Your task to perform on an android device: Search for "beats solo 3" on costco, select the first entry, add it to the cart, then select checkout. Image 0: 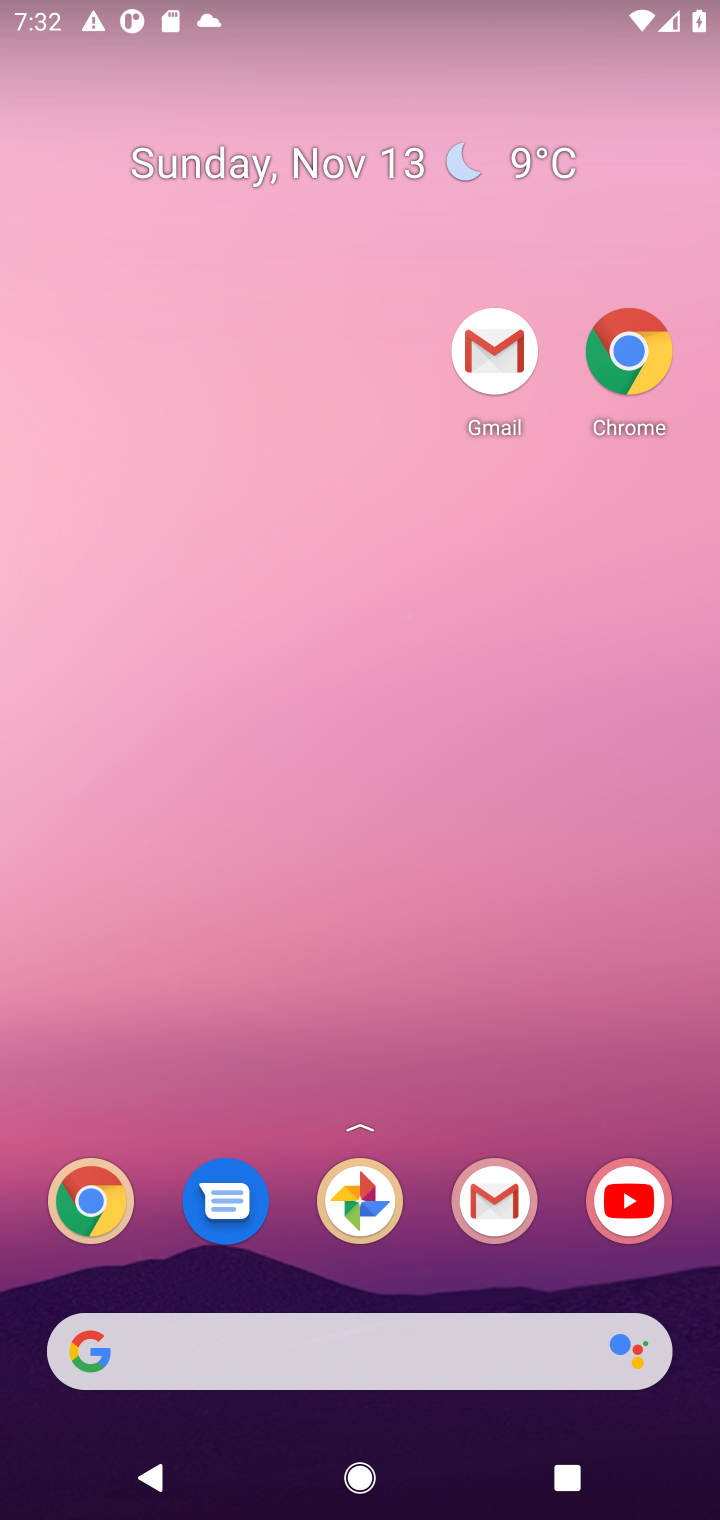
Step 0: drag from (419, 1291) to (318, 104)
Your task to perform on an android device: Search for "beats solo 3" on costco, select the first entry, add it to the cart, then select checkout. Image 1: 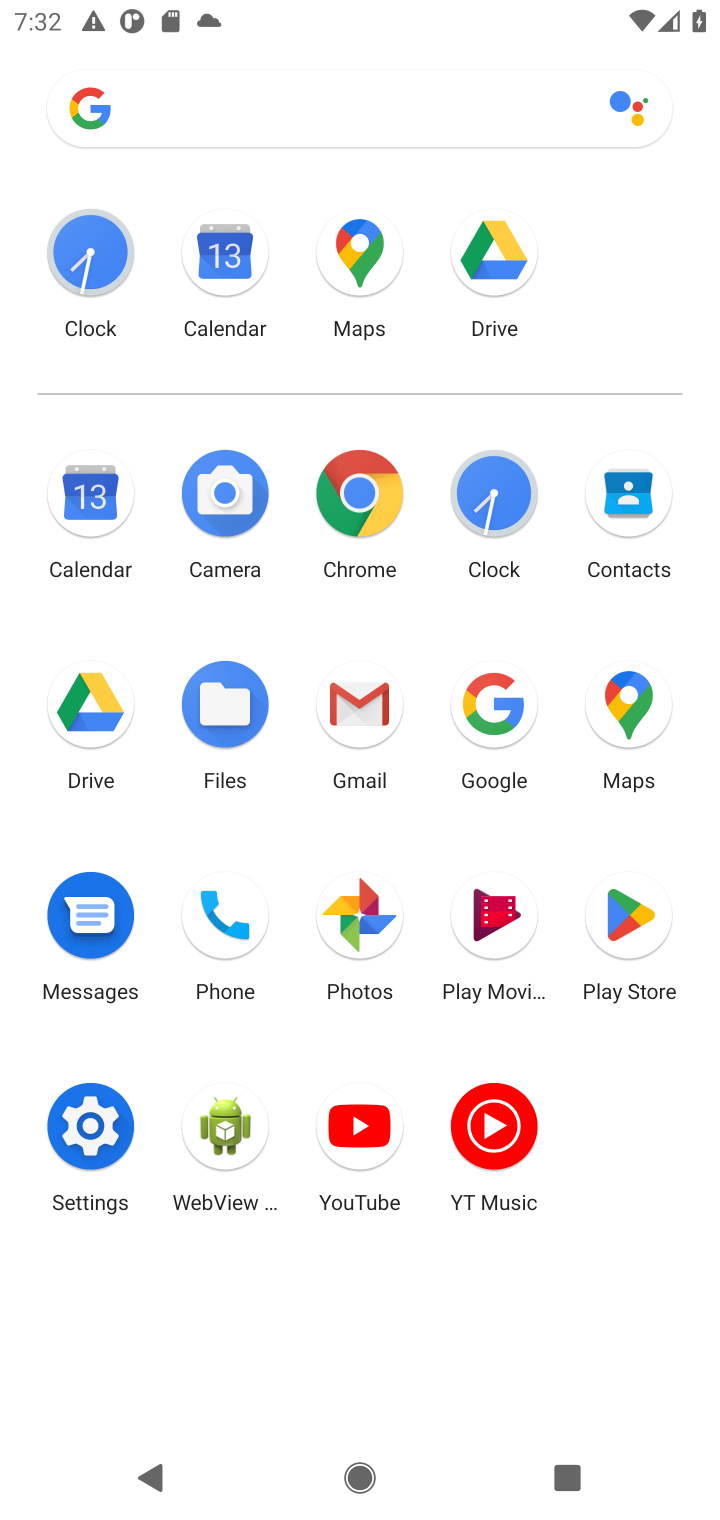
Step 1: click (349, 489)
Your task to perform on an android device: Search for "beats solo 3" on costco, select the first entry, add it to the cart, then select checkout. Image 2: 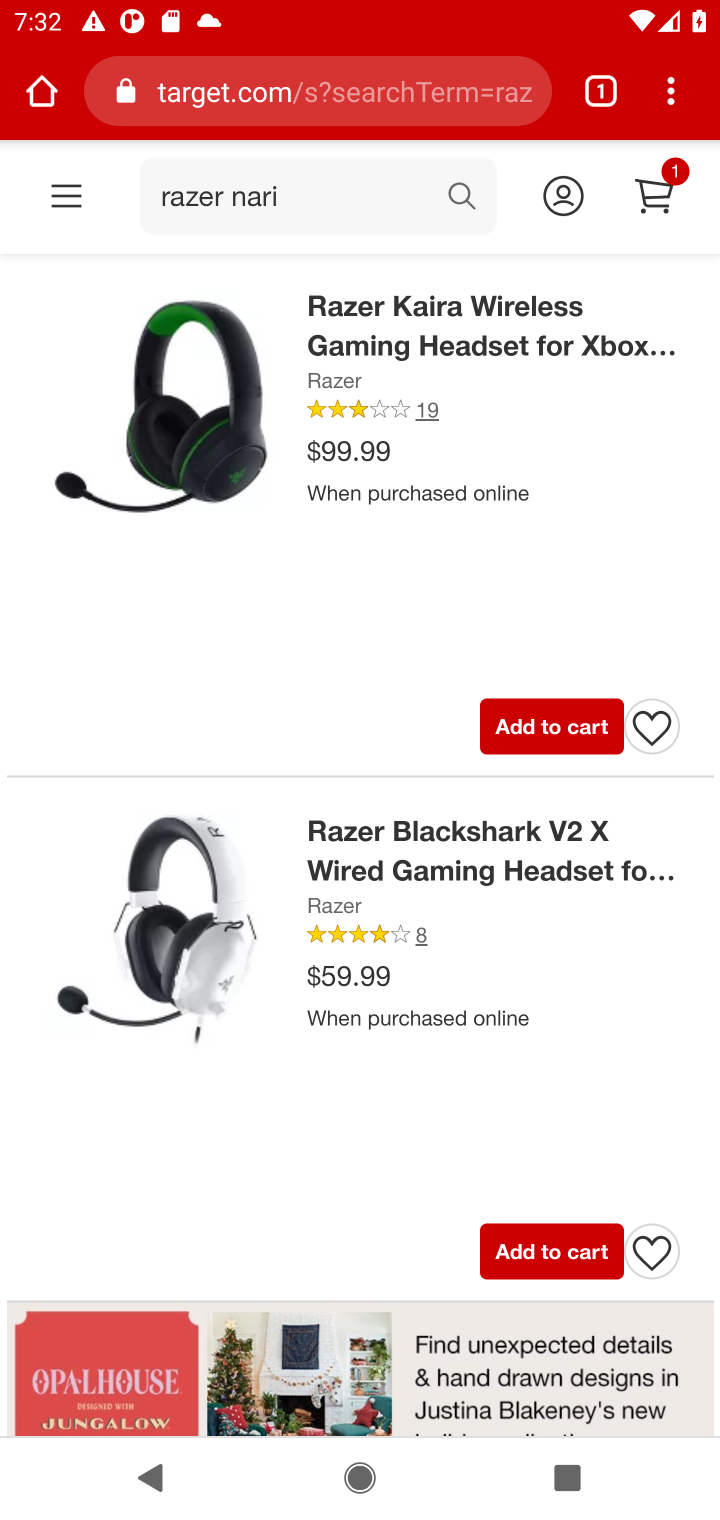
Step 2: click (391, 95)
Your task to perform on an android device: Search for "beats solo 3" on costco, select the first entry, add it to the cart, then select checkout. Image 3: 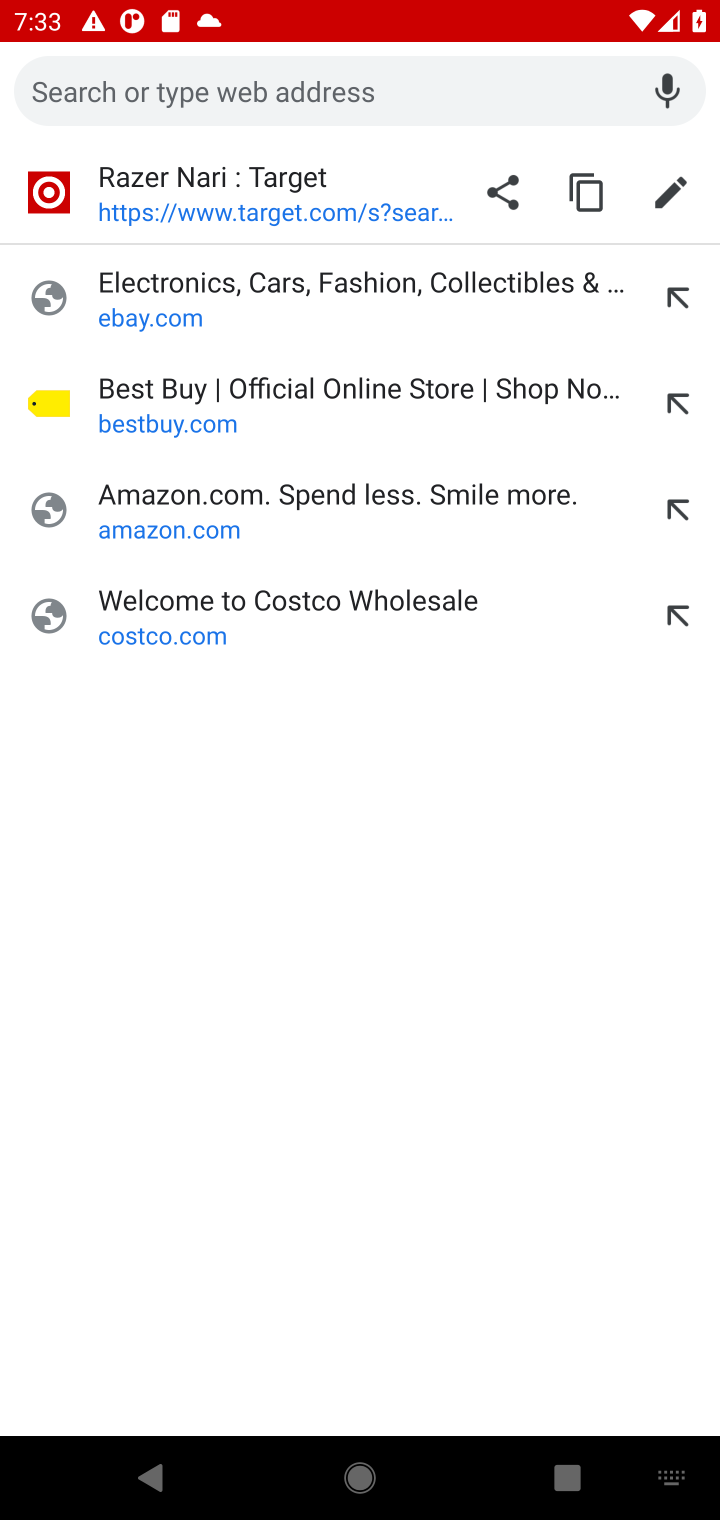
Step 3: type "costco.om"
Your task to perform on an android device: Search for "beats solo 3" on costco, select the first entry, add it to the cart, then select checkout. Image 4: 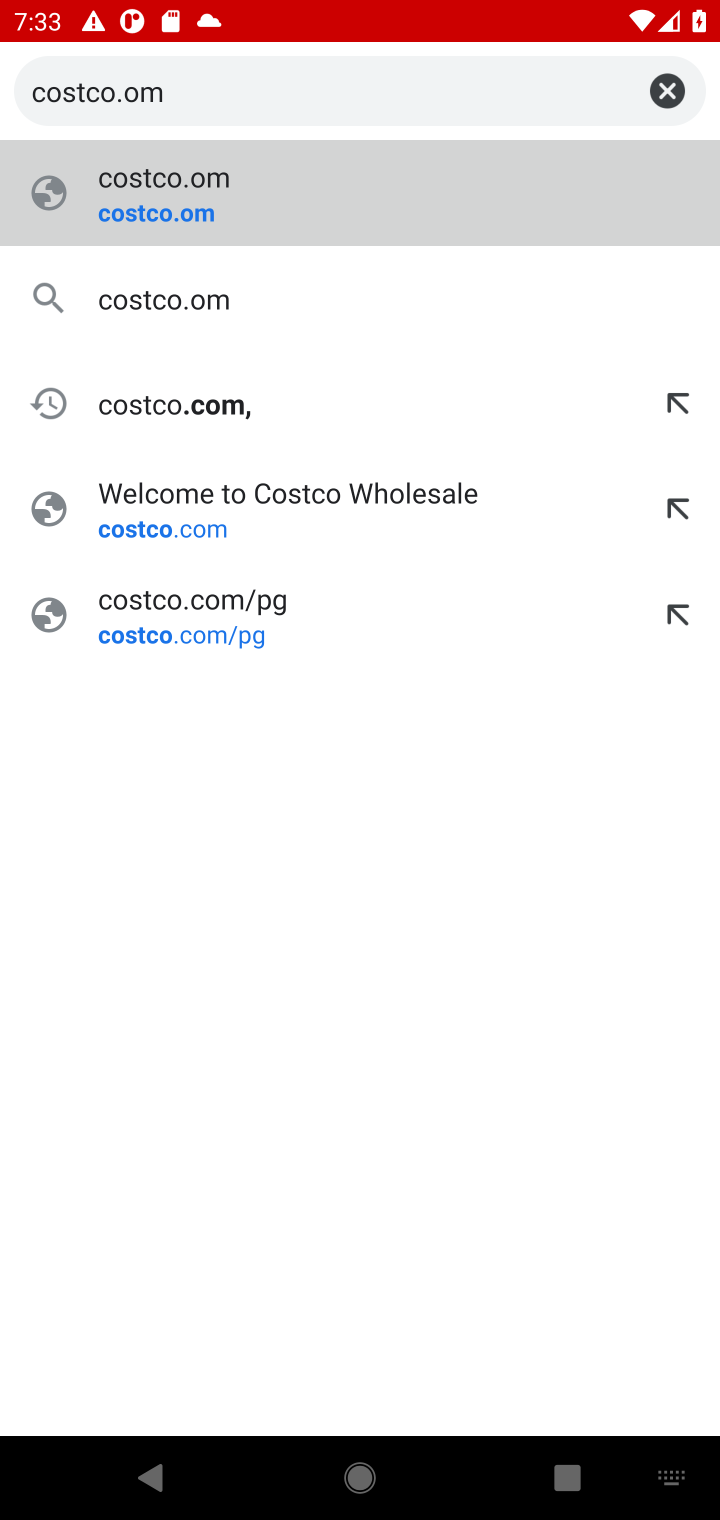
Step 4: click (141, 535)
Your task to perform on an android device: Search for "beats solo 3" on costco, select the first entry, add it to the cart, then select checkout. Image 5: 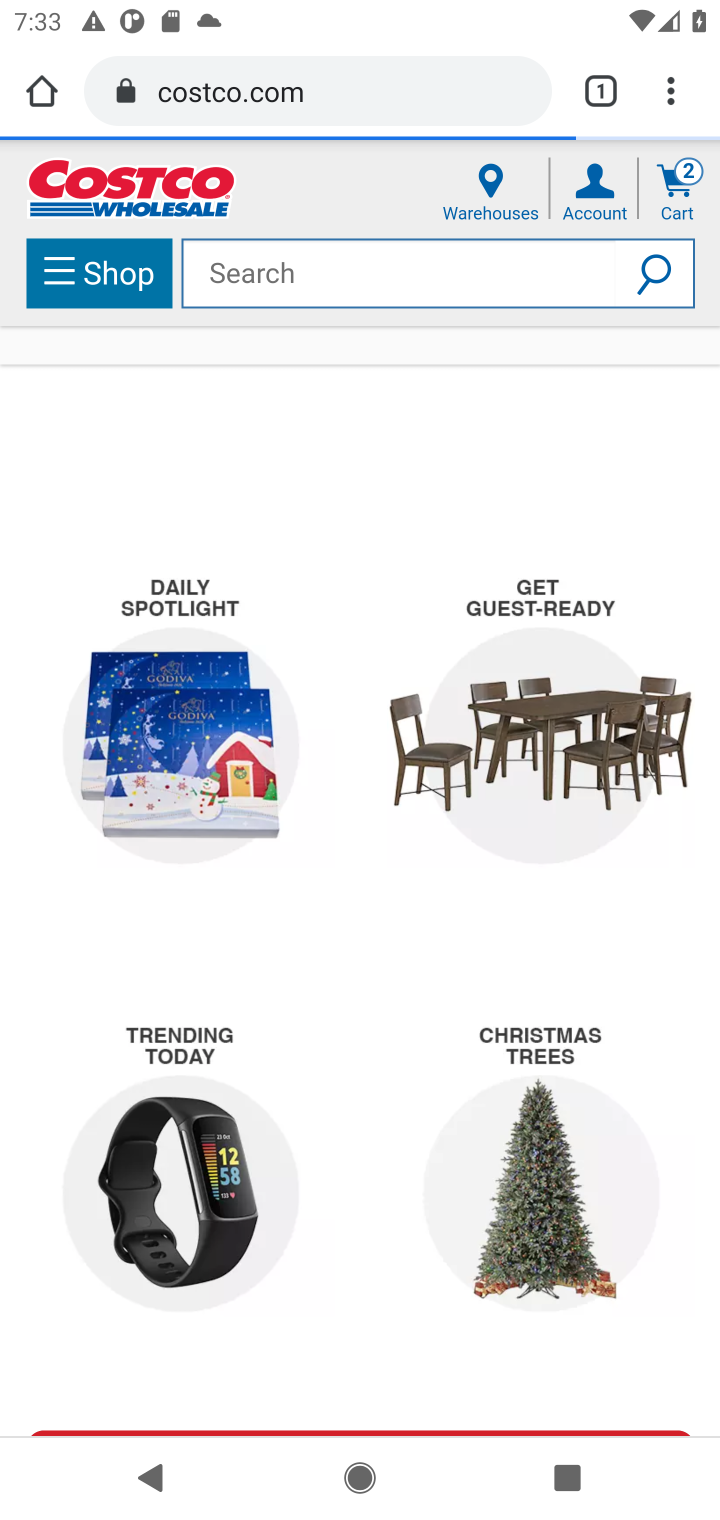
Step 5: click (400, 273)
Your task to perform on an android device: Search for "beats solo 3" on costco, select the first entry, add it to the cart, then select checkout. Image 6: 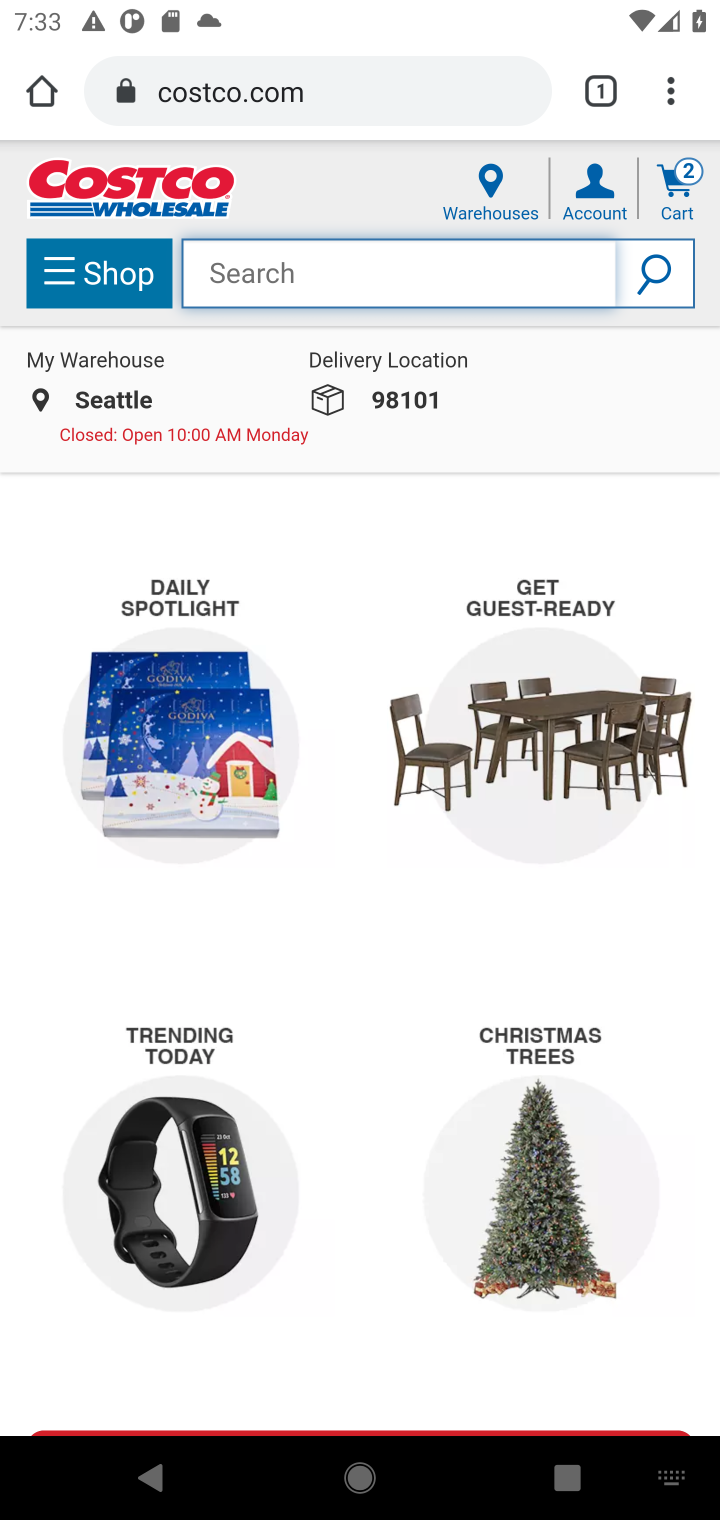
Step 6: type "beats solo 3"
Your task to perform on an android device: Search for "beats solo 3" on costco, select the first entry, add it to the cart, then select checkout. Image 7: 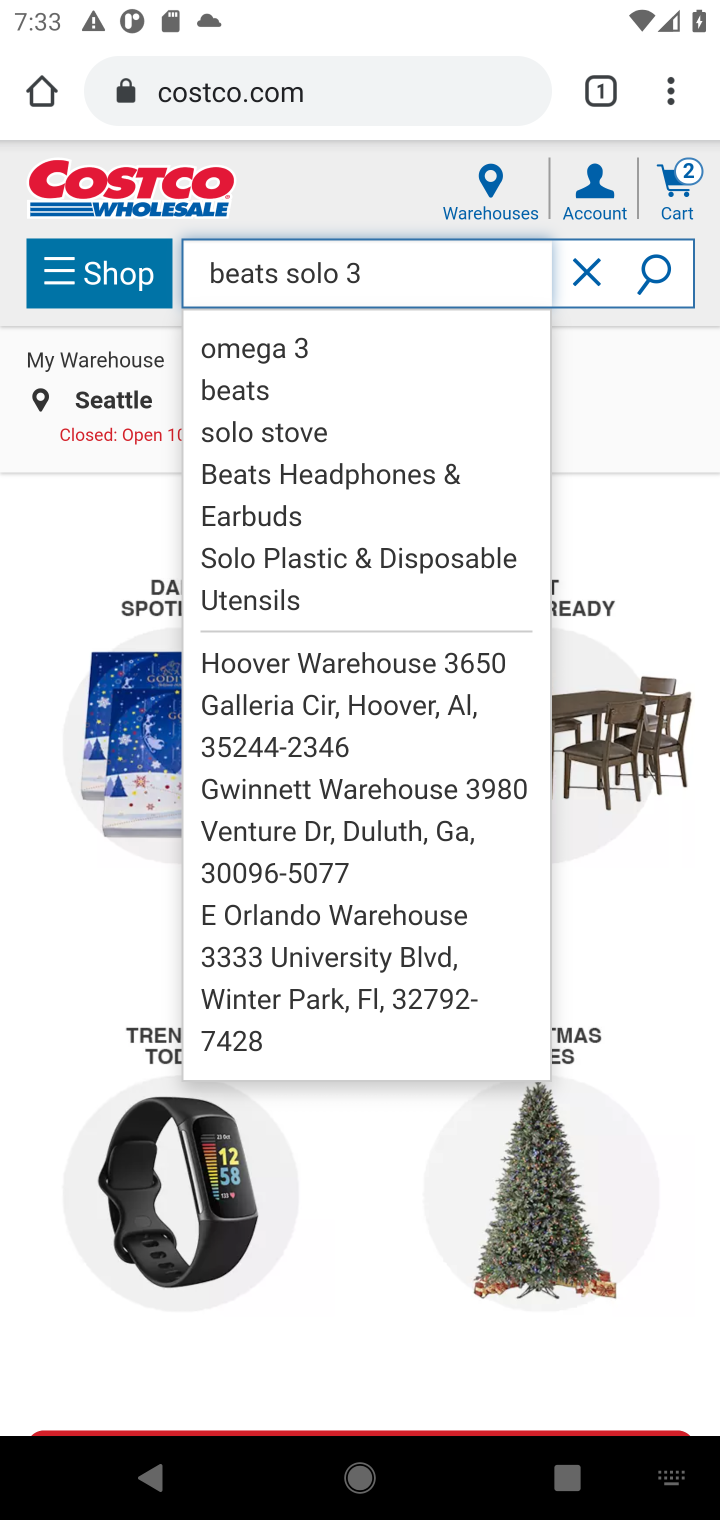
Step 7: press enter
Your task to perform on an android device: Search for "beats solo 3" on costco, select the first entry, add it to the cart, then select checkout. Image 8: 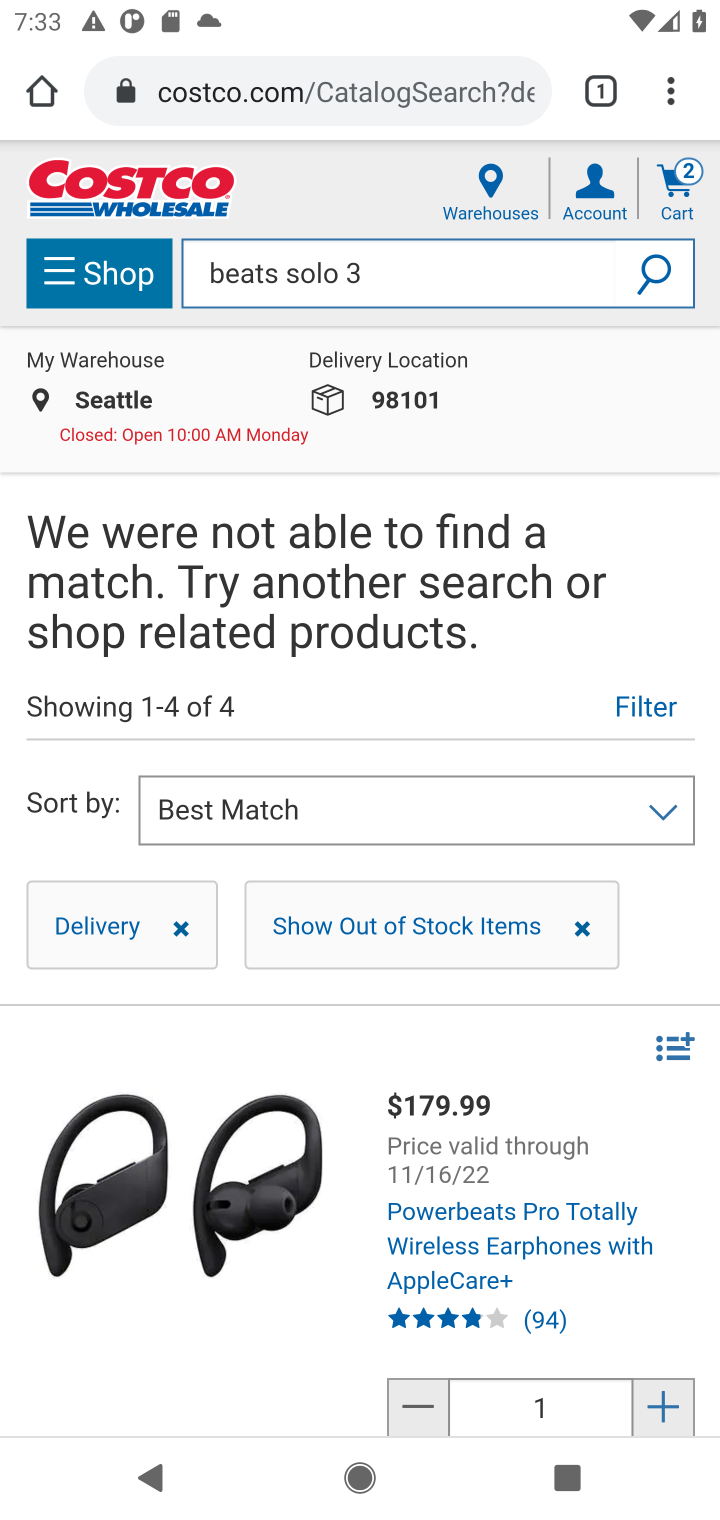
Step 8: task complete